Your task to perform on an android device: toggle wifi Image 0: 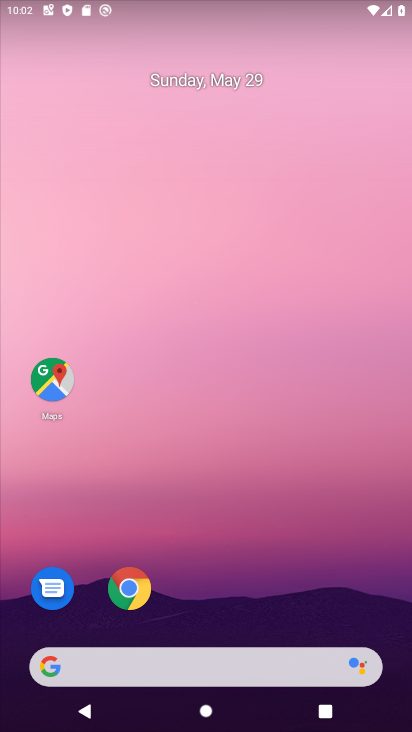
Step 0: drag from (254, 607) to (289, 86)
Your task to perform on an android device: toggle wifi Image 1: 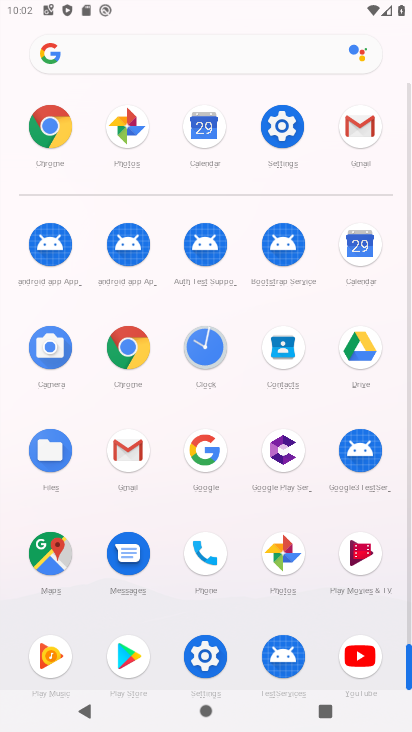
Step 1: click (200, 656)
Your task to perform on an android device: toggle wifi Image 2: 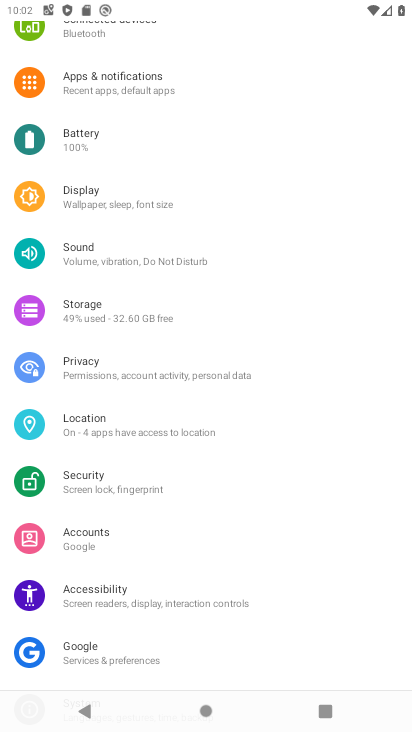
Step 2: drag from (224, 122) to (102, 655)
Your task to perform on an android device: toggle wifi Image 3: 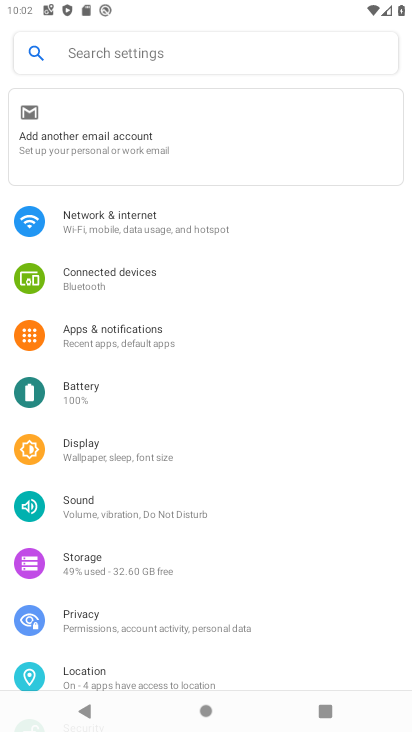
Step 3: click (193, 222)
Your task to perform on an android device: toggle wifi Image 4: 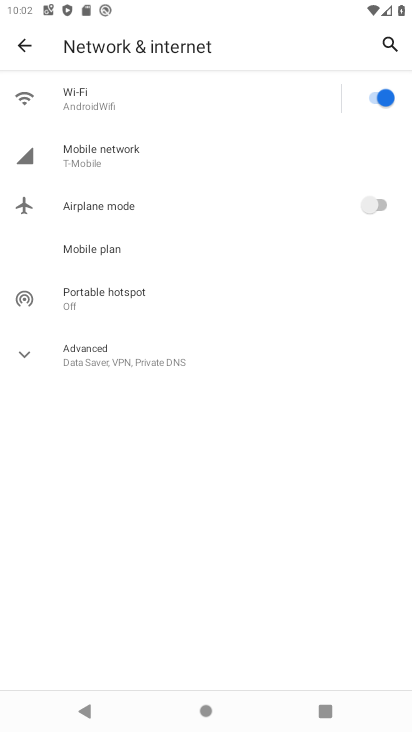
Step 4: click (384, 94)
Your task to perform on an android device: toggle wifi Image 5: 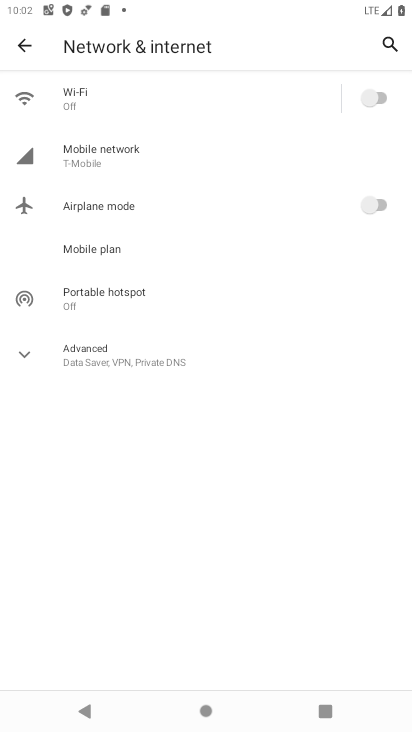
Step 5: task complete